Your task to perform on an android device: What's on my calendar tomorrow? Image 0: 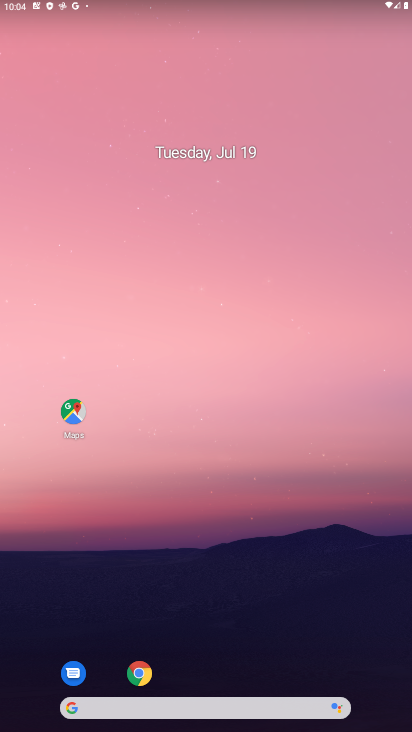
Step 0: drag from (257, 664) to (251, 232)
Your task to perform on an android device: What's on my calendar tomorrow? Image 1: 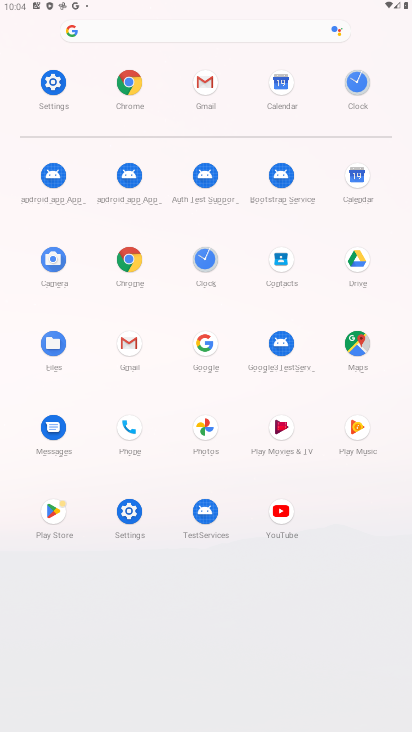
Step 1: click (272, 102)
Your task to perform on an android device: What's on my calendar tomorrow? Image 2: 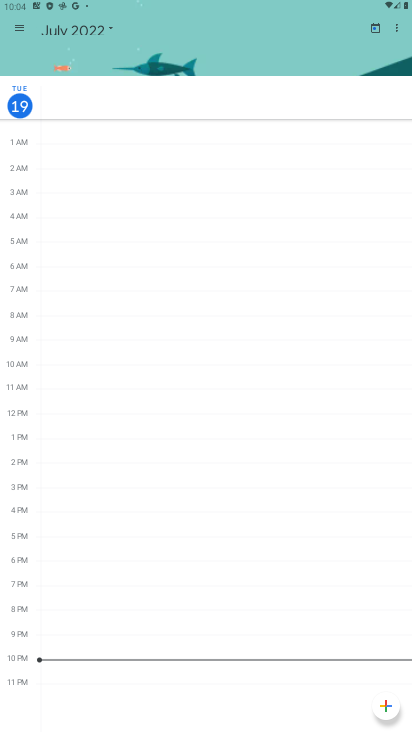
Step 2: task complete